Your task to perform on an android device: See recent photos Image 0: 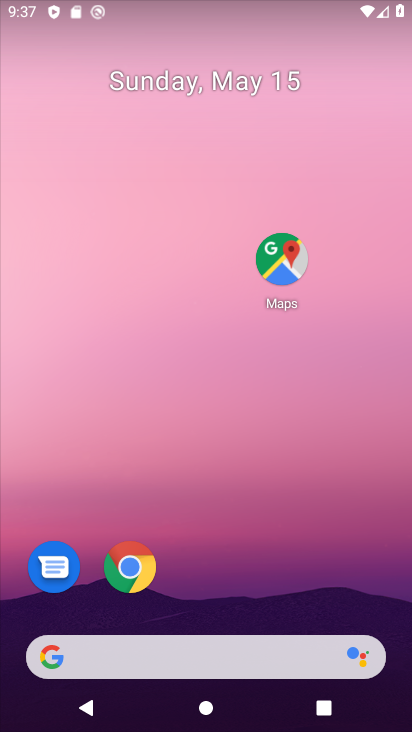
Step 0: drag from (221, 568) to (199, 139)
Your task to perform on an android device: See recent photos Image 1: 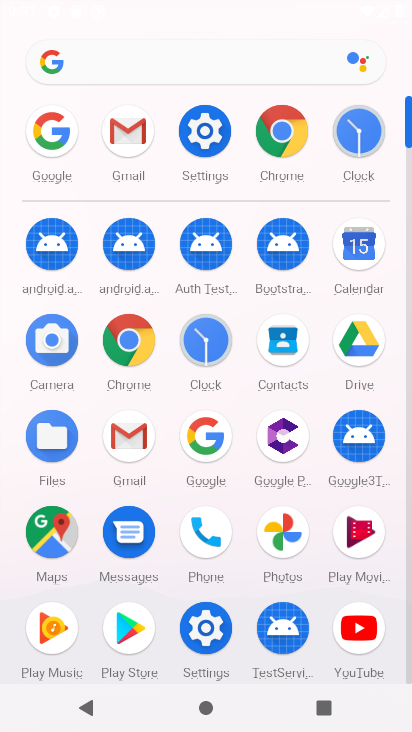
Step 1: click (281, 528)
Your task to perform on an android device: See recent photos Image 2: 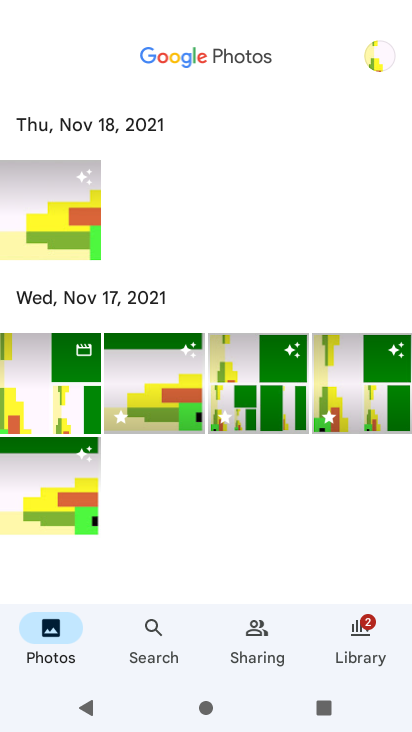
Step 2: task complete